Your task to perform on an android device: Go to location settings Image 0: 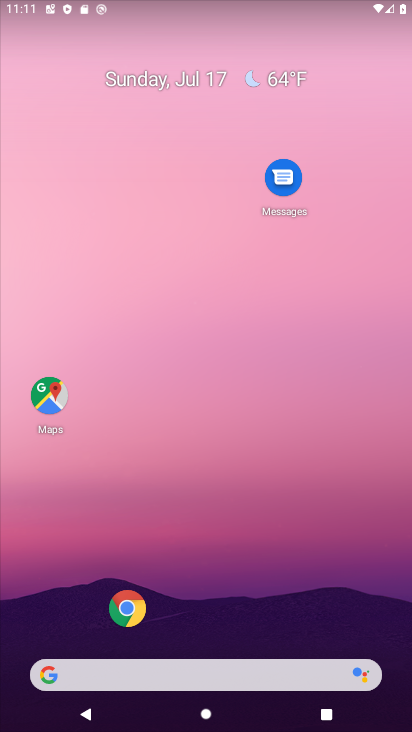
Step 0: drag from (63, 706) to (172, 211)
Your task to perform on an android device: Go to location settings Image 1: 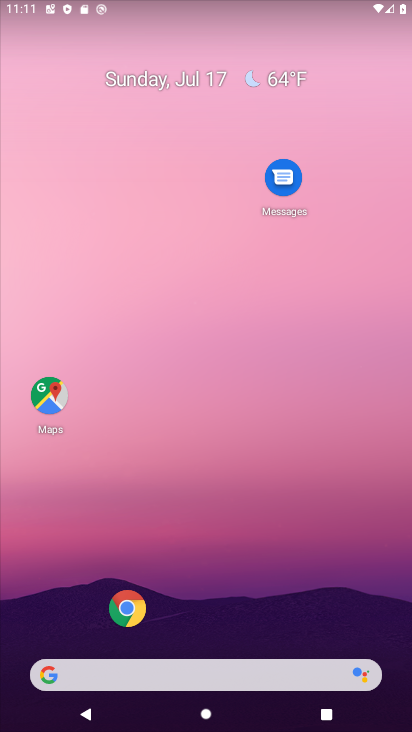
Step 1: drag from (60, 552) to (157, 81)
Your task to perform on an android device: Go to location settings Image 2: 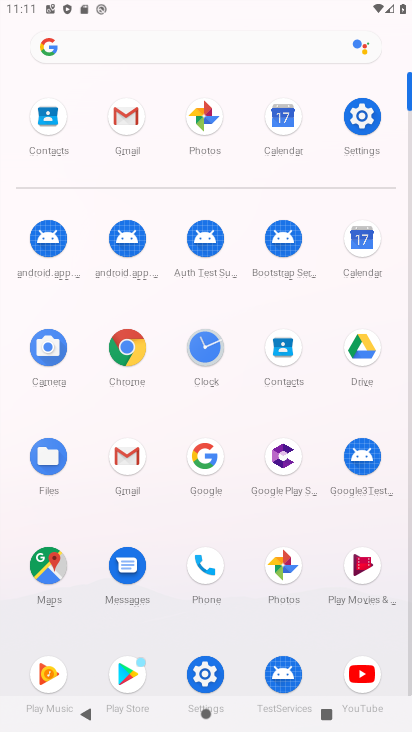
Step 2: click (205, 674)
Your task to perform on an android device: Go to location settings Image 3: 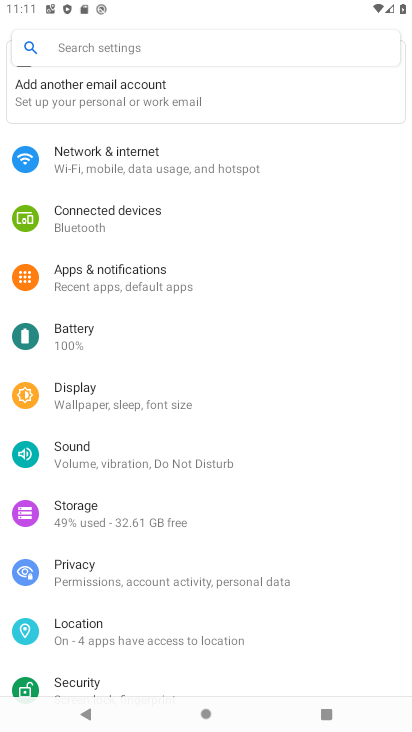
Step 3: click (98, 636)
Your task to perform on an android device: Go to location settings Image 4: 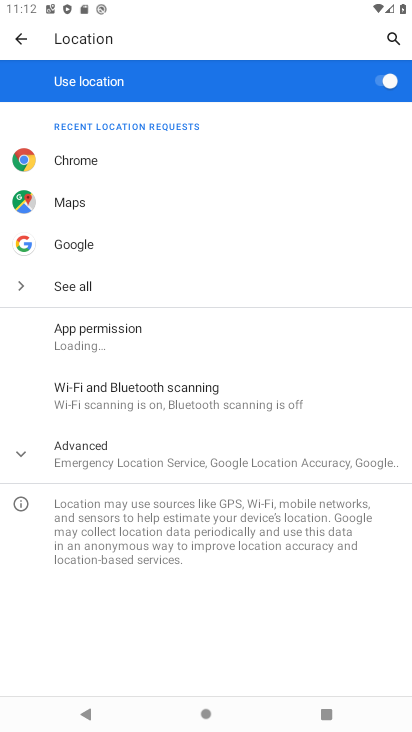
Step 4: click (103, 453)
Your task to perform on an android device: Go to location settings Image 5: 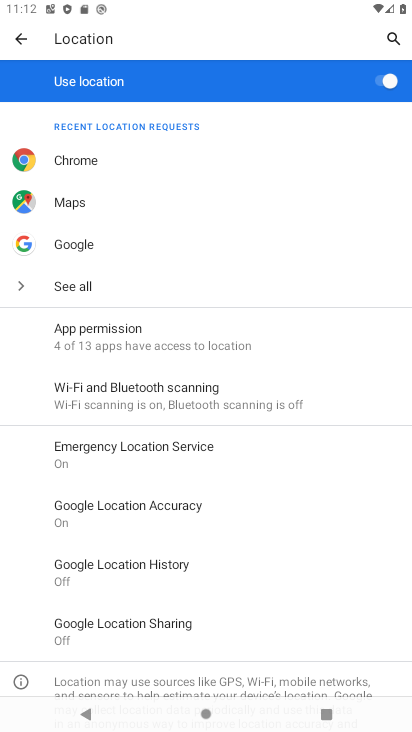
Step 5: task complete